Your task to perform on an android device: Open Yahoo.com Image 0: 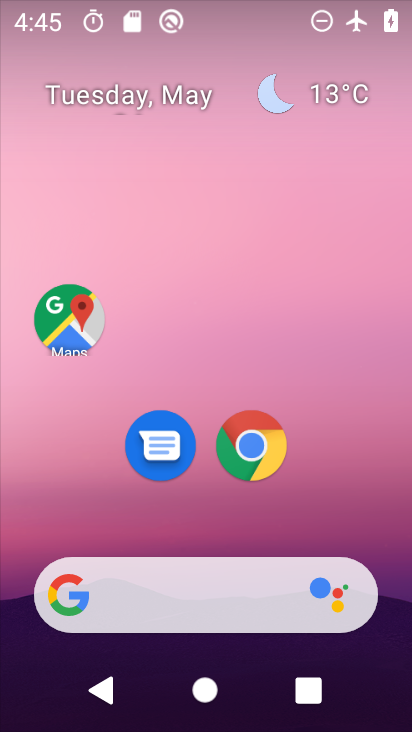
Step 0: press home button
Your task to perform on an android device: Open Yahoo.com Image 1: 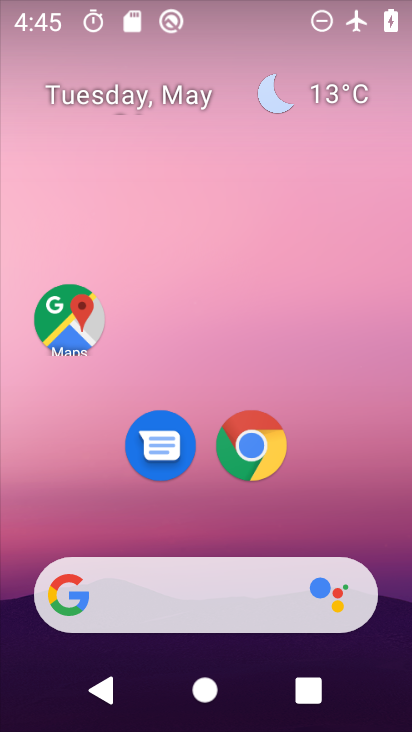
Step 1: click (246, 436)
Your task to perform on an android device: Open Yahoo.com Image 2: 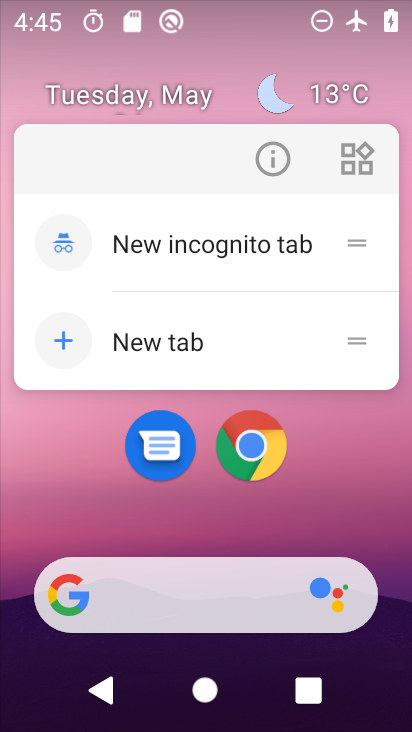
Step 2: click (248, 435)
Your task to perform on an android device: Open Yahoo.com Image 3: 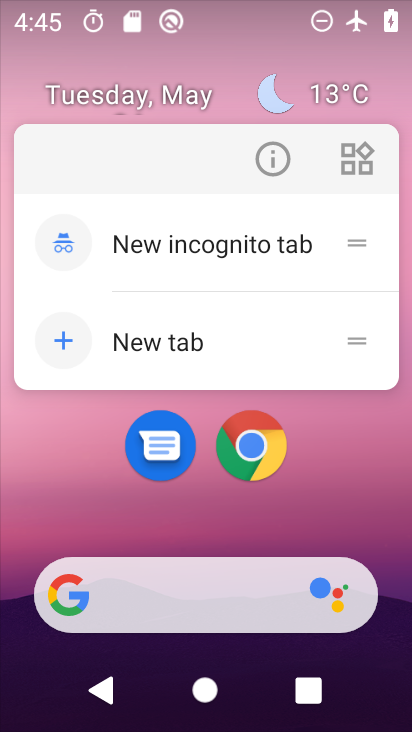
Step 3: click (247, 436)
Your task to perform on an android device: Open Yahoo.com Image 4: 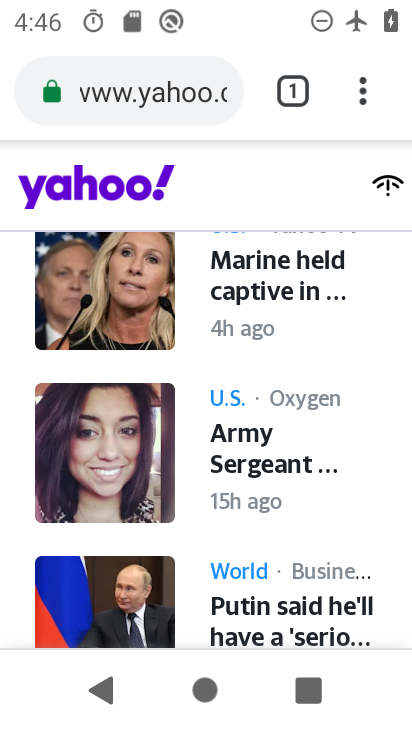
Step 4: task complete